Your task to perform on an android device: turn off location history Image 0: 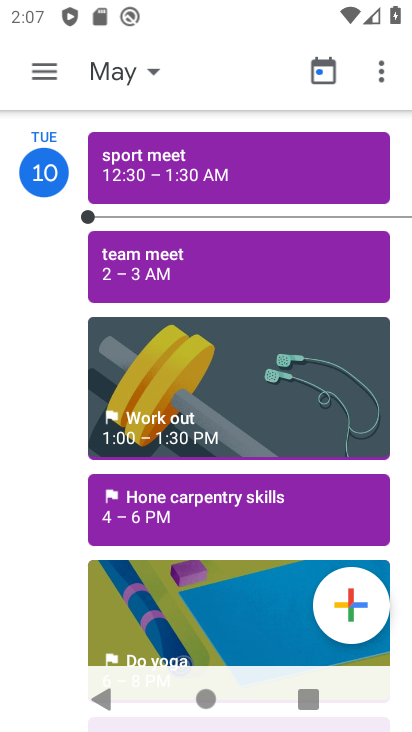
Step 0: press home button
Your task to perform on an android device: turn off location history Image 1: 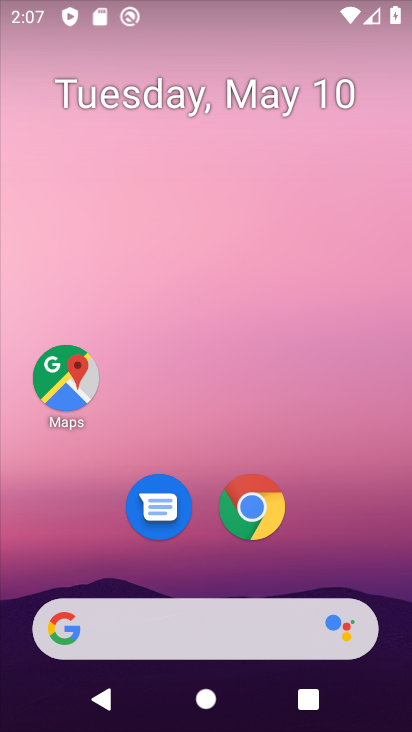
Step 1: drag from (149, 602) to (192, 246)
Your task to perform on an android device: turn off location history Image 2: 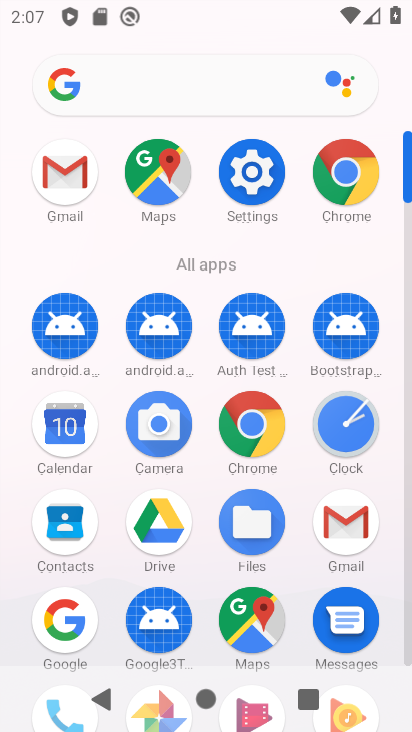
Step 2: click (260, 175)
Your task to perform on an android device: turn off location history Image 3: 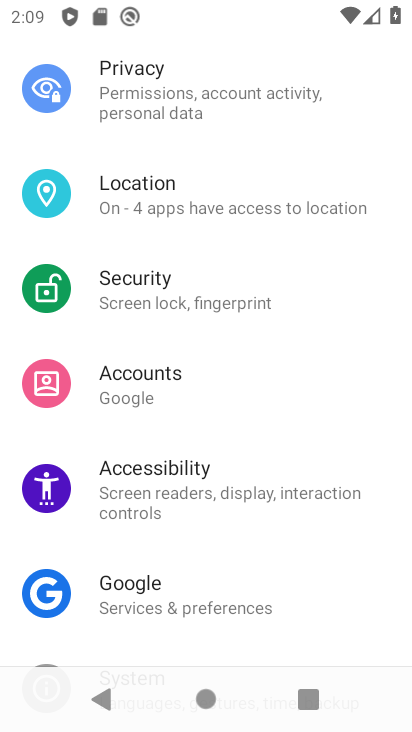
Step 3: click (205, 188)
Your task to perform on an android device: turn off location history Image 4: 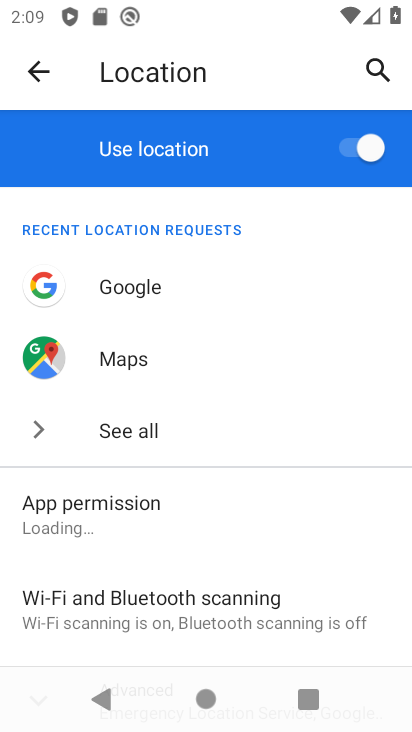
Step 4: drag from (151, 628) to (155, 250)
Your task to perform on an android device: turn off location history Image 5: 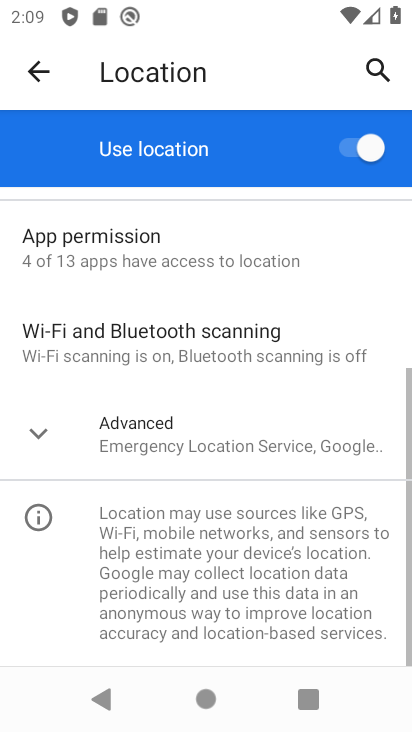
Step 5: click (137, 410)
Your task to perform on an android device: turn off location history Image 6: 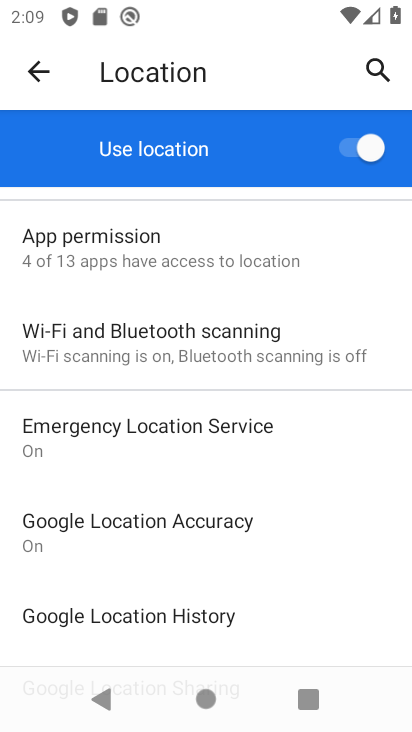
Step 6: click (207, 615)
Your task to perform on an android device: turn off location history Image 7: 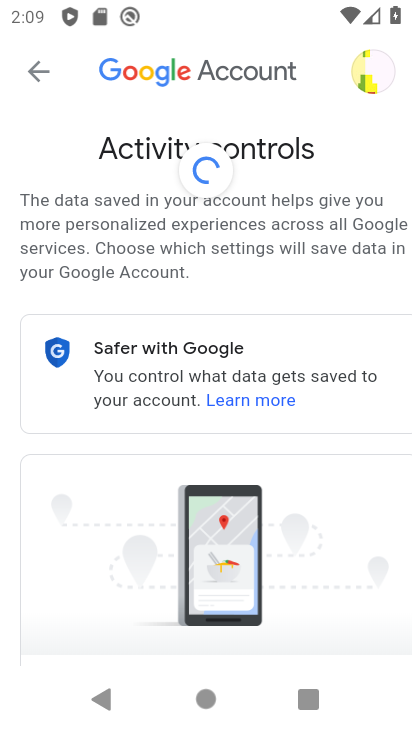
Step 7: drag from (158, 616) to (118, 175)
Your task to perform on an android device: turn off location history Image 8: 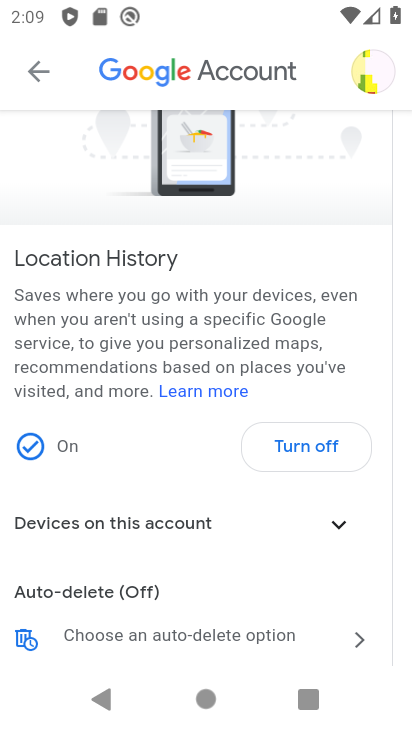
Step 8: click (301, 447)
Your task to perform on an android device: turn off location history Image 9: 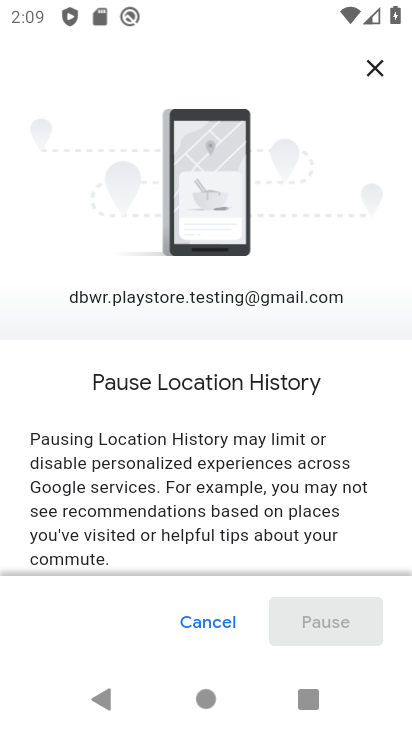
Step 9: drag from (325, 552) to (356, 166)
Your task to perform on an android device: turn off location history Image 10: 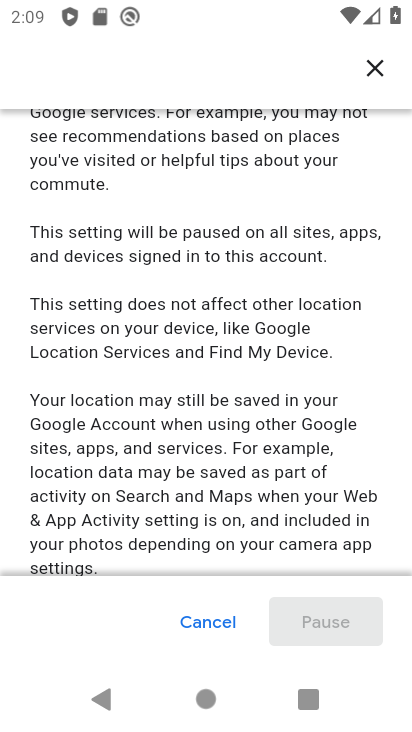
Step 10: drag from (333, 546) to (341, 152)
Your task to perform on an android device: turn off location history Image 11: 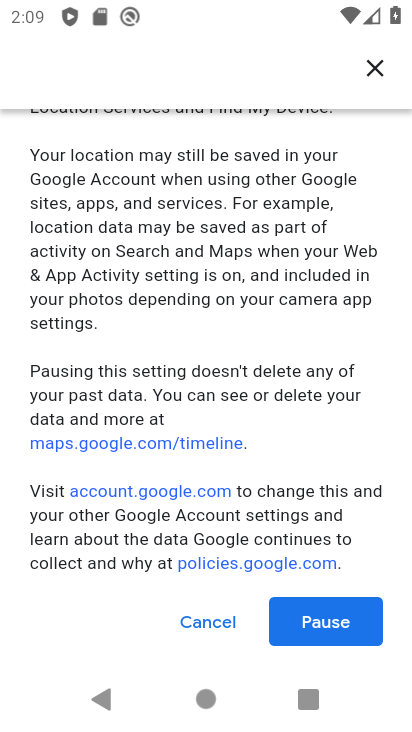
Step 11: click (335, 625)
Your task to perform on an android device: turn off location history Image 12: 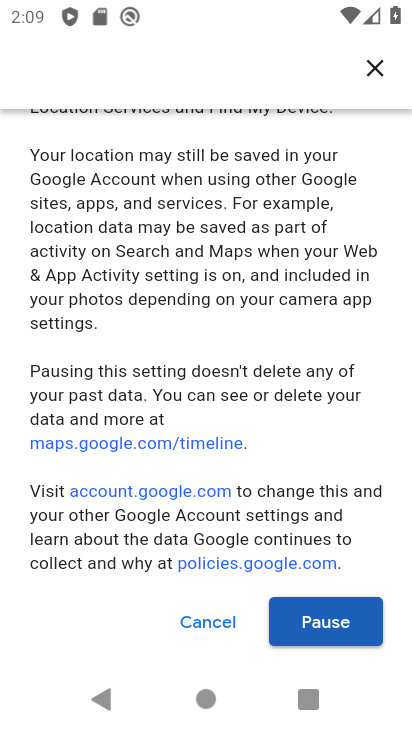
Step 12: click (335, 624)
Your task to perform on an android device: turn off location history Image 13: 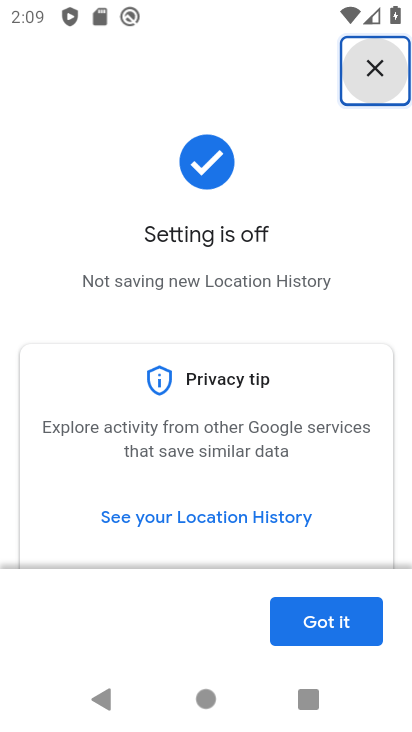
Step 13: click (335, 624)
Your task to perform on an android device: turn off location history Image 14: 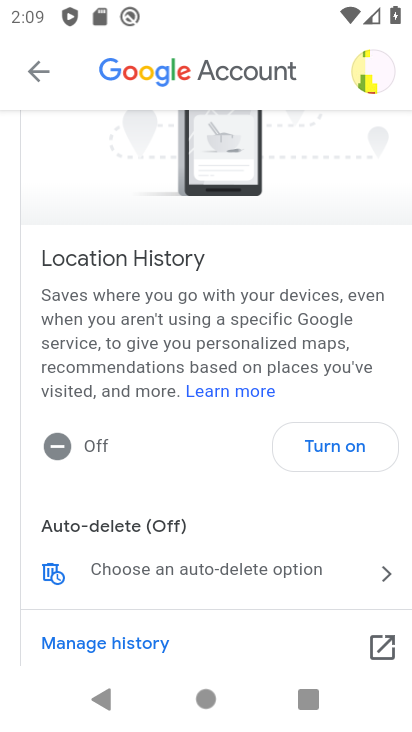
Step 14: task complete